Your task to perform on an android device: open chrome privacy settings Image 0: 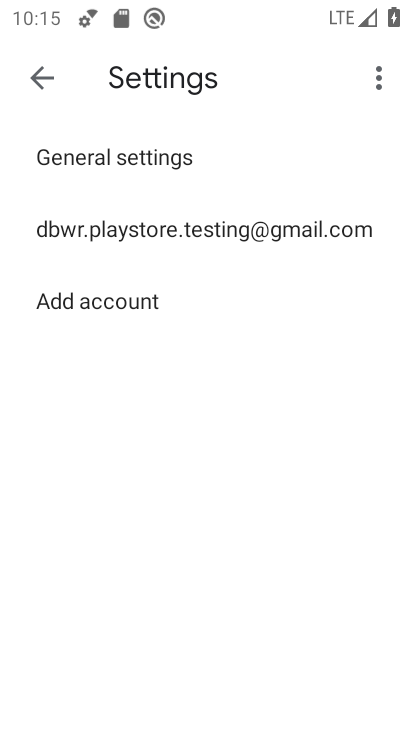
Step 0: press home button
Your task to perform on an android device: open chrome privacy settings Image 1: 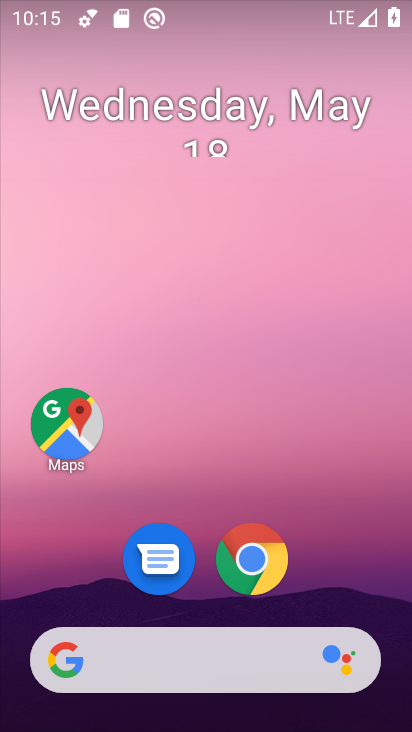
Step 1: click (250, 556)
Your task to perform on an android device: open chrome privacy settings Image 2: 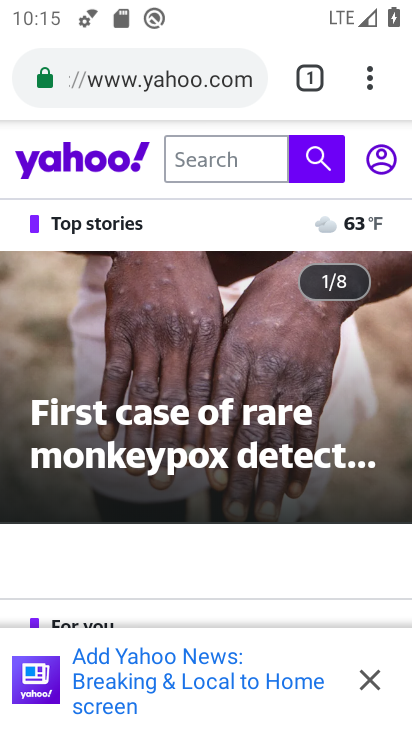
Step 2: click (373, 71)
Your task to perform on an android device: open chrome privacy settings Image 3: 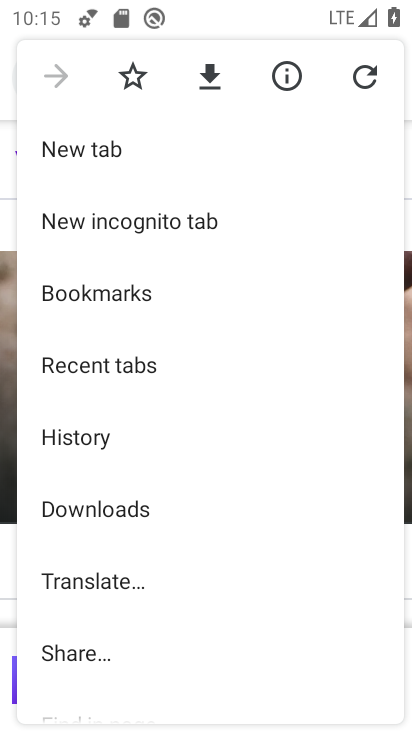
Step 3: drag from (131, 531) to (175, 234)
Your task to perform on an android device: open chrome privacy settings Image 4: 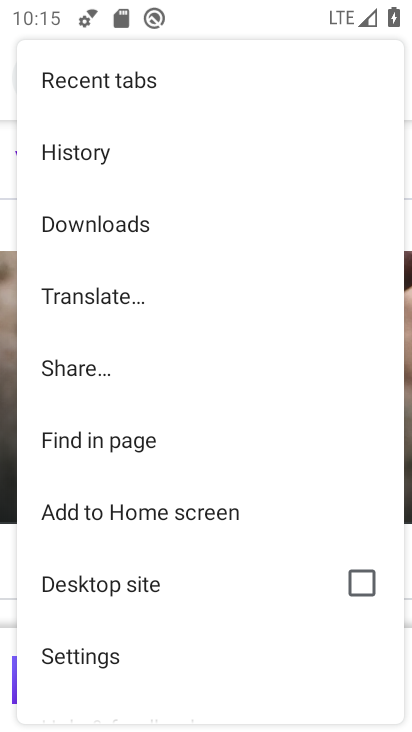
Step 4: drag from (133, 629) to (147, 499)
Your task to perform on an android device: open chrome privacy settings Image 5: 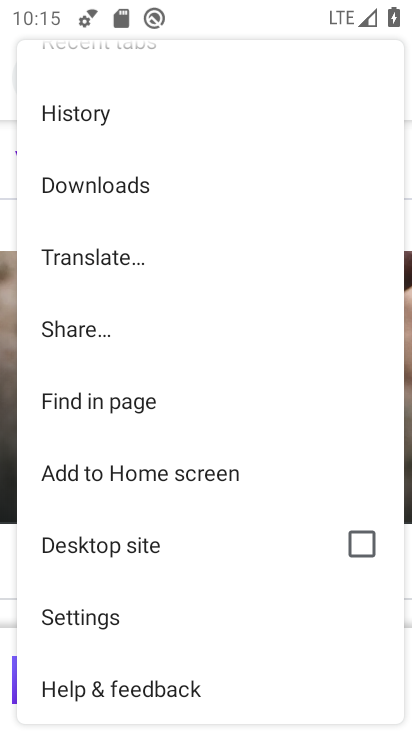
Step 5: click (106, 622)
Your task to perform on an android device: open chrome privacy settings Image 6: 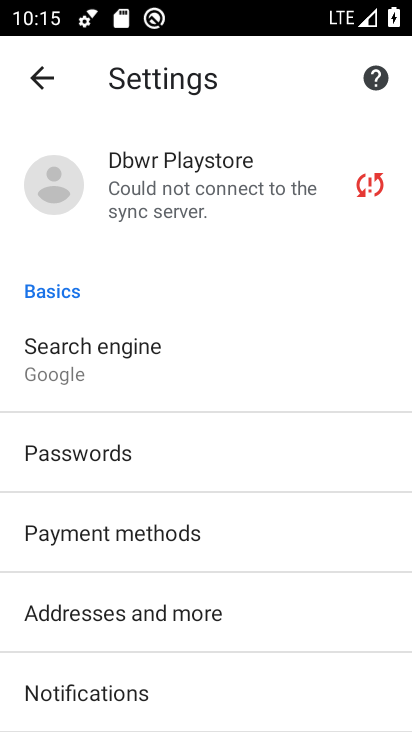
Step 6: drag from (149, 610) to (206, 433)
Your task to perform on an android device: open chrome privacy settings Image 7: 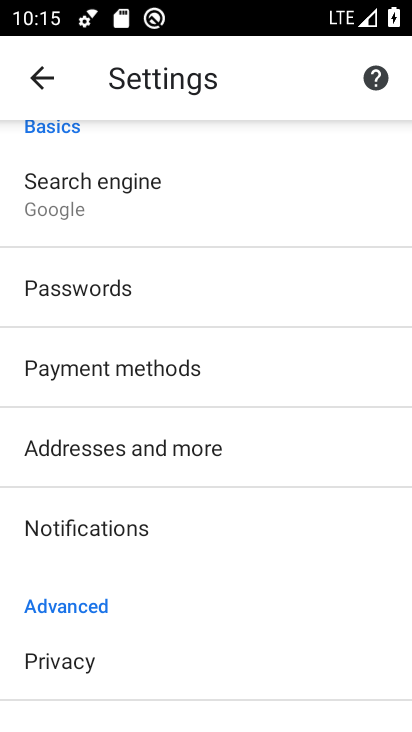
Step 7: click (88, 670)
Your task to perform on an android device: open chrome privacy settings Image 8: 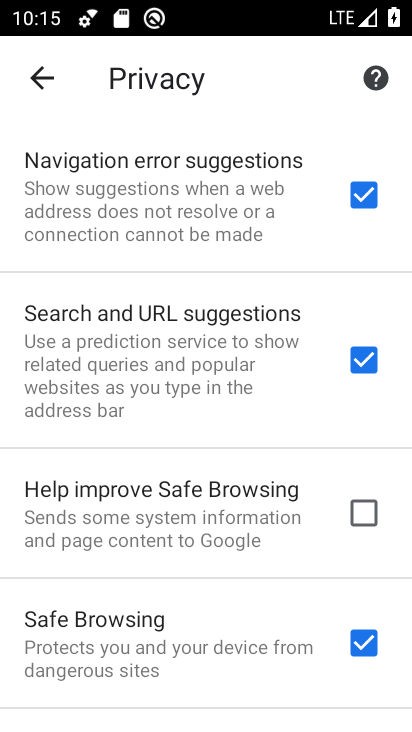
Step 8: task complete